Your task to perform on an android device: Search for logitech g pro on ebay, select the first entry, add it to the cart, then select checkout. Image 0: 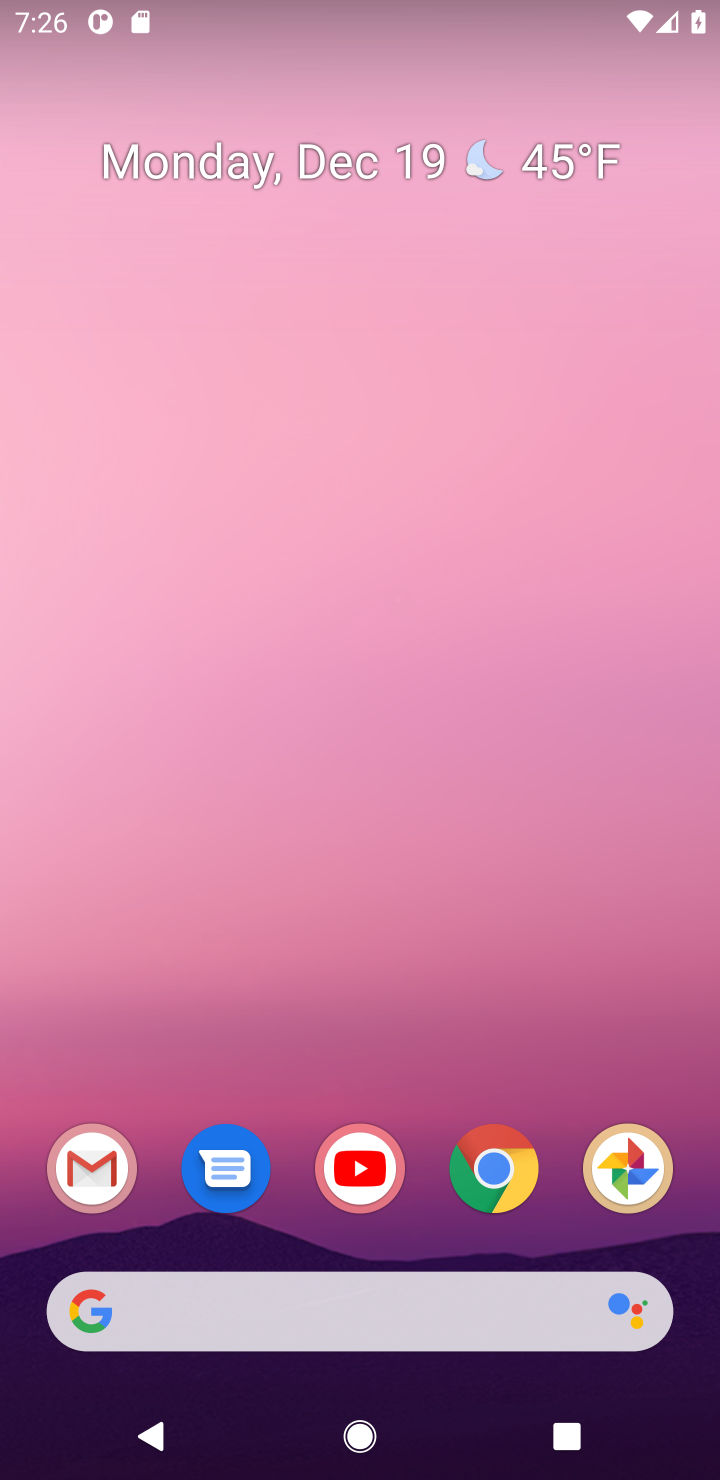
Step 0: click (495, 1169)
Your task to perform on an android device: Search for logitech g pro on ebay, select the first entry, add it to the cart, then select checkout. Image 1: 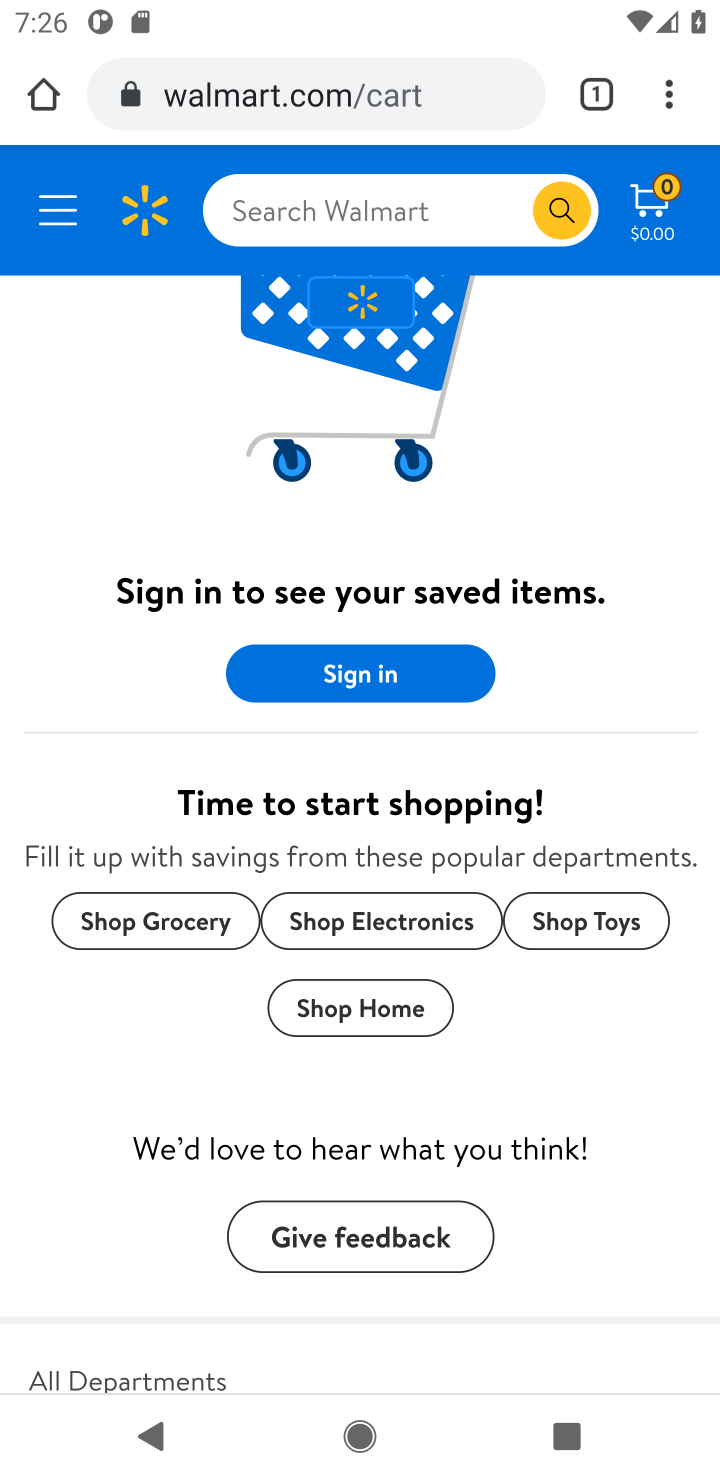
Step 1: click (362, 101)
Your task to perform on an android device: Search for logitech g pro on ebay, select the first entry, add it to the cart, then select checkout. Image 2: 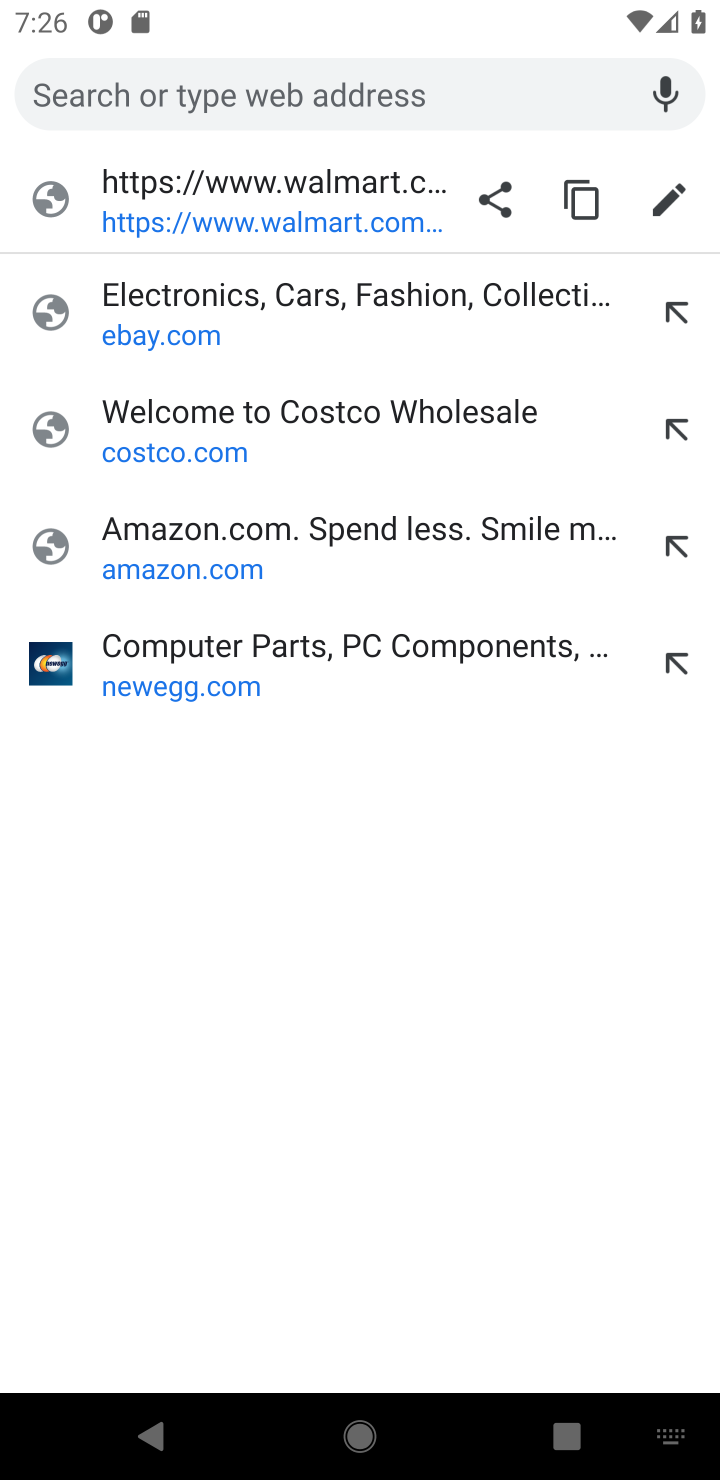
Step 2: click (155, 340)
Your task to perform on an android device: Search for logitech g pro on ebay, select the first entry, add it to the cart, then select checkout. Image 3: 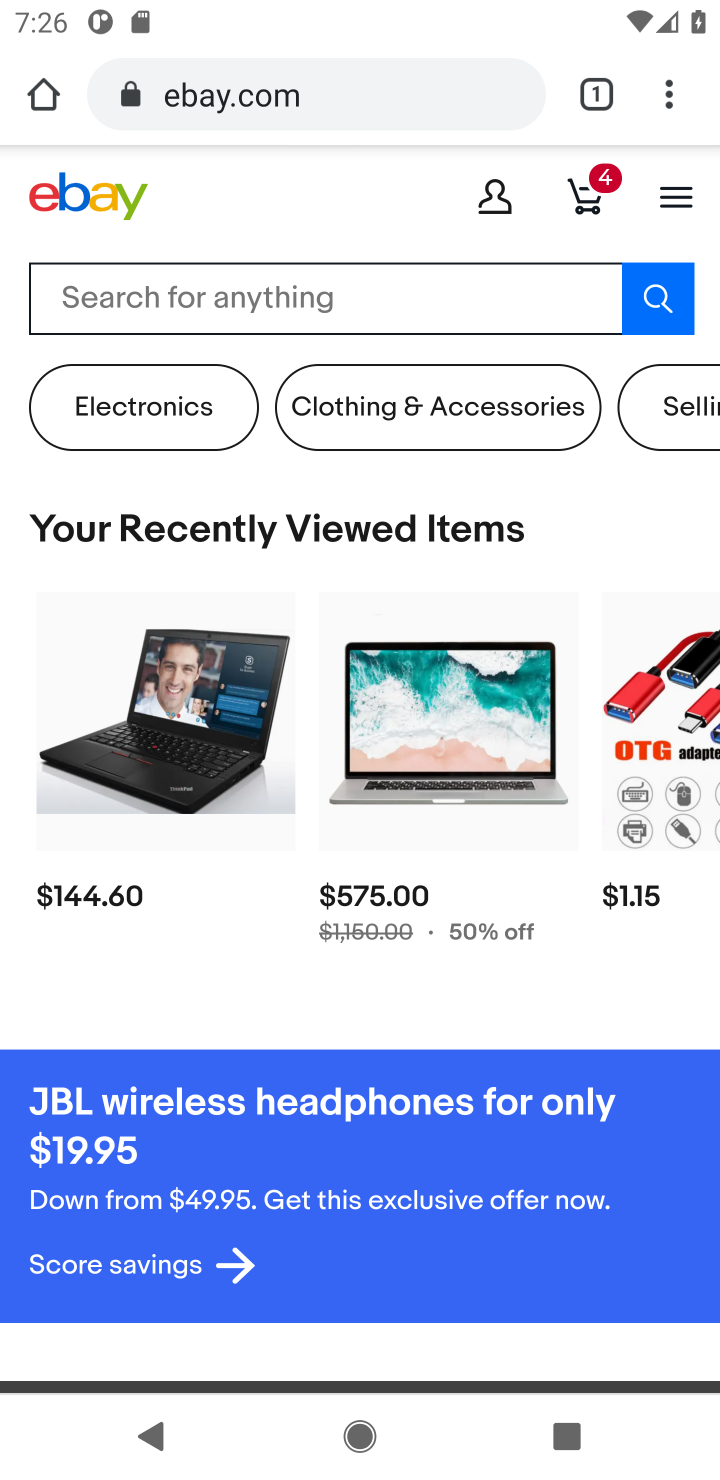
Step 3: click (193, 288)
Your task to perform on an android device: Search for logitech g pro on ebay, select the first entry, add it to the cart, then select checkout. Image 4: 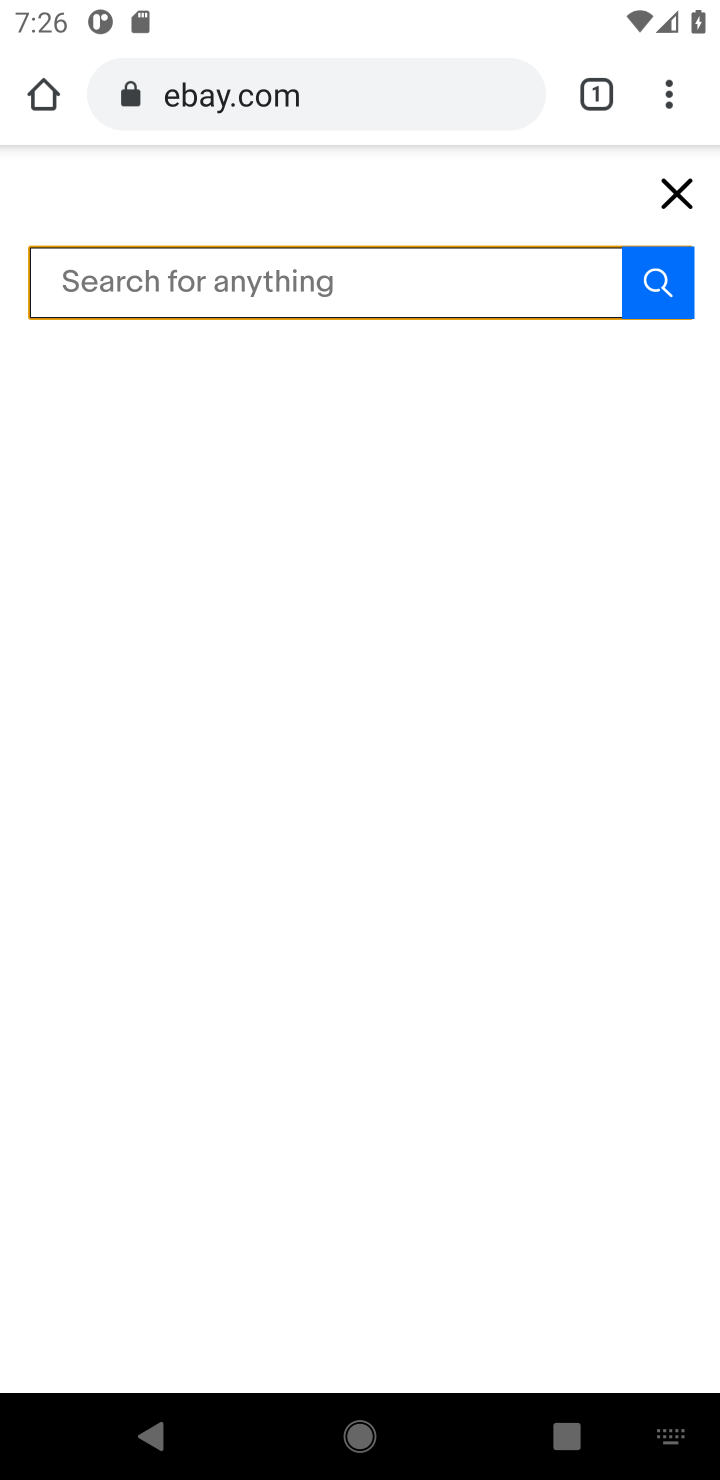
Step 4: type "logitech g pro"
Your task to perform on an android device: Search for logitech g pro on ebay, select the first entry, add it to the cart, then select checkout. Image 5: 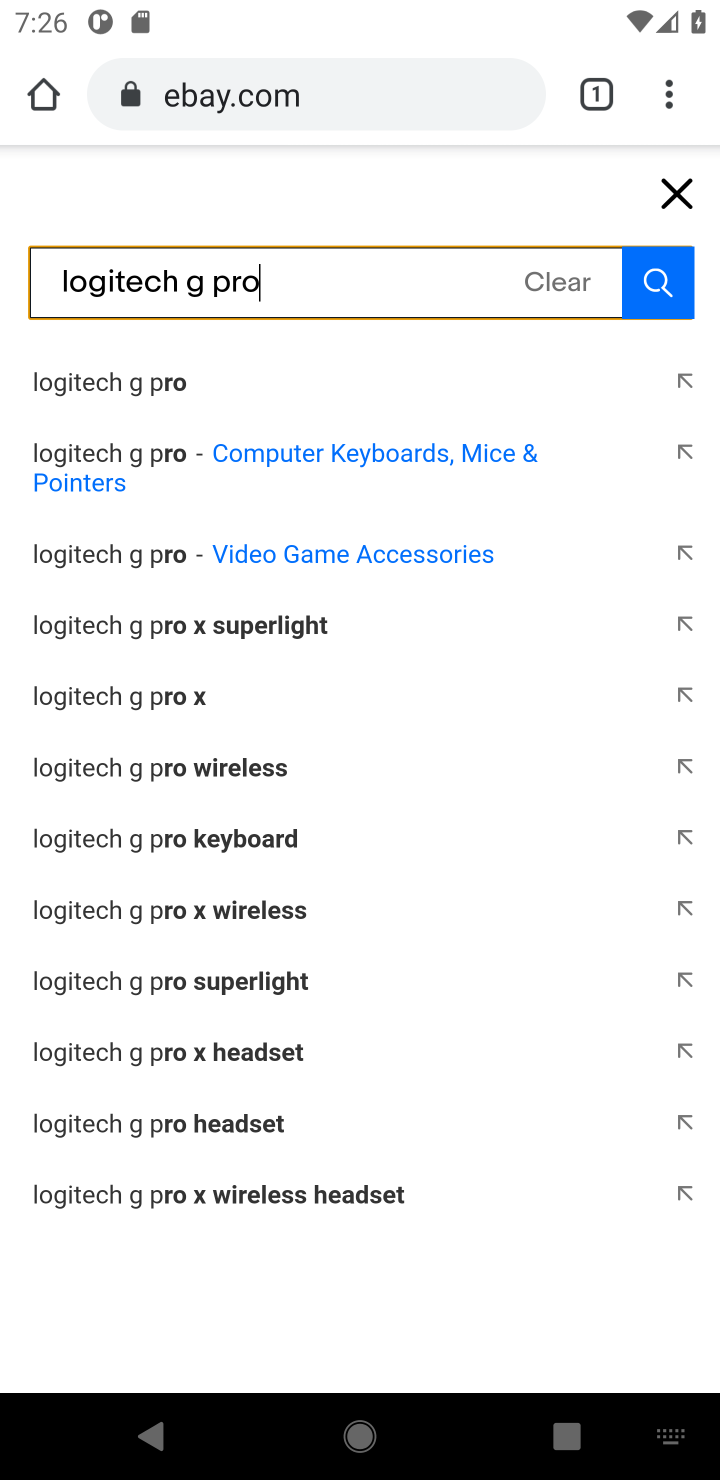
Step 5: click (143, 397)
Your task to perform on an android device: Search for logitech g pro on ebay, select the first entry, add it to the cart, then select checkout. Image 6: 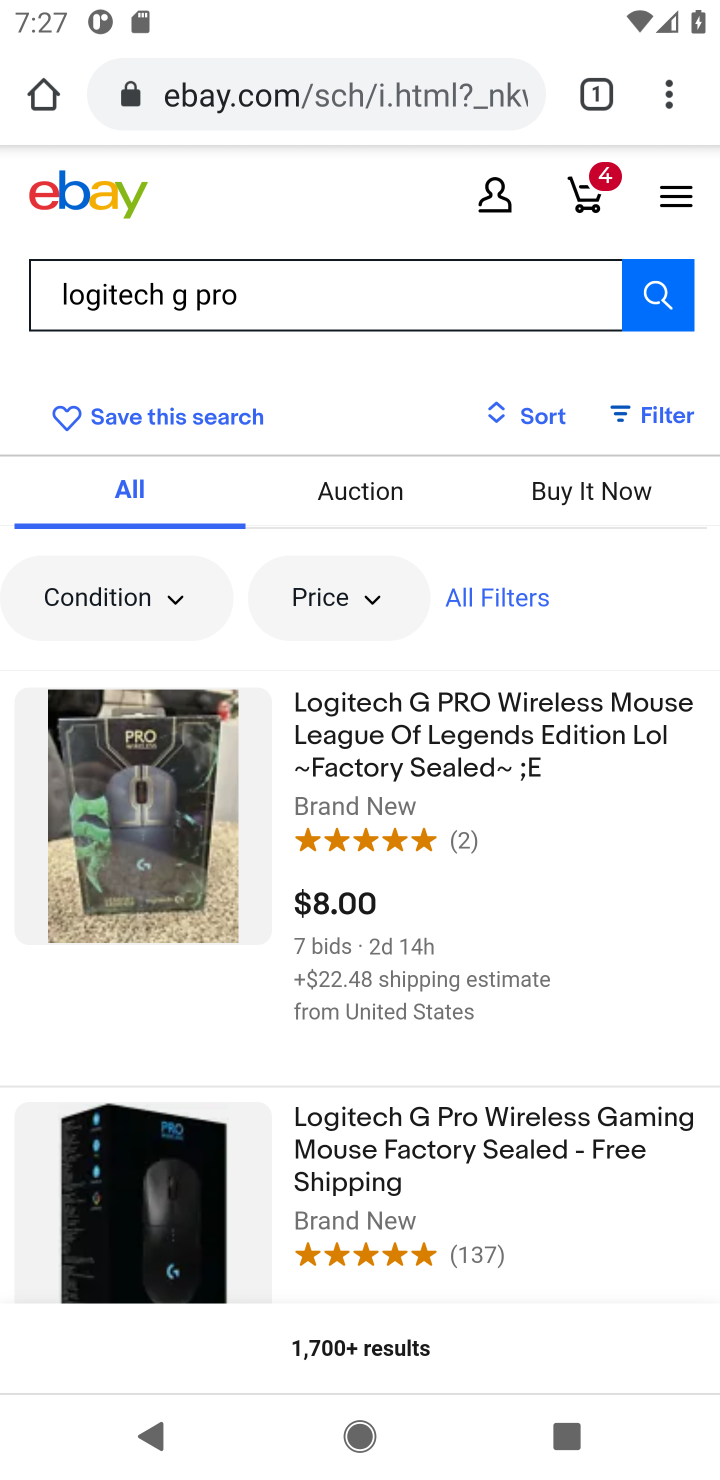
Step 6: task complete